Your task to perform on an android device: empty trash in google photos Image 0: 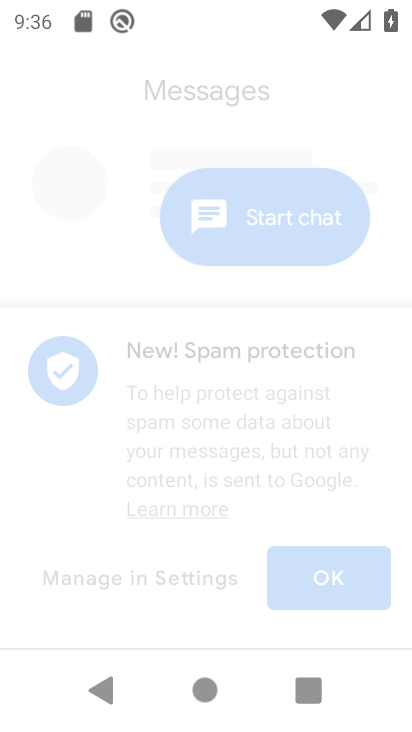
Step 0: drag from (387, 524) to (383, 153)
Your task to perform on an android device: empty trash in google photos Image 1: 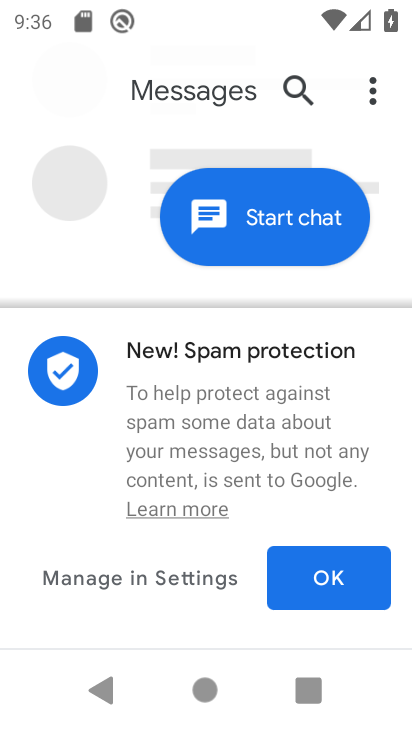
Step 1: press home button
Your task to perform on an android device: empty trash in google photos Image 2: 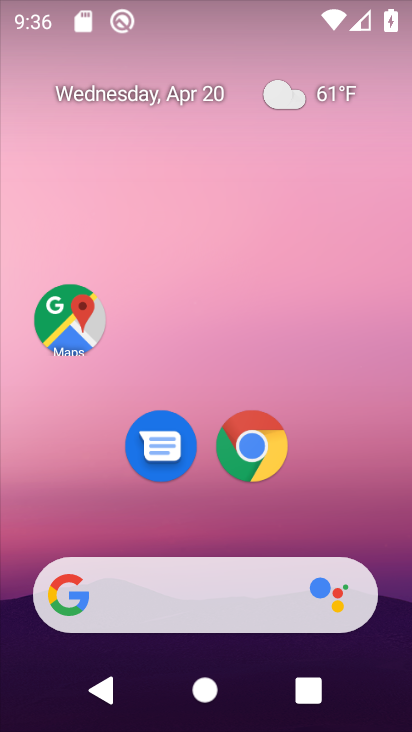
Step 2: drag from (366, 453) to (356, 97)
Your task to perform on an android device: empty trash in google photos Image 3: 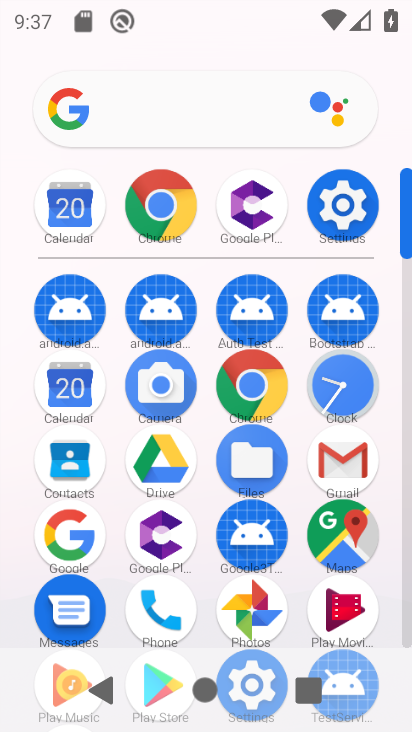
Step 3: click (259, 617)
Your task to perform on an android device: empty trash in google photos Image 4: 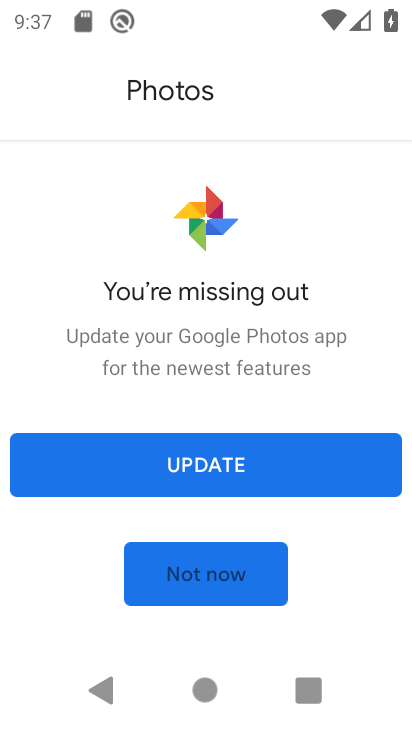
Step 4: click (223, 466)
Your task to perform on an android device: empty trash in google photos Image 5: 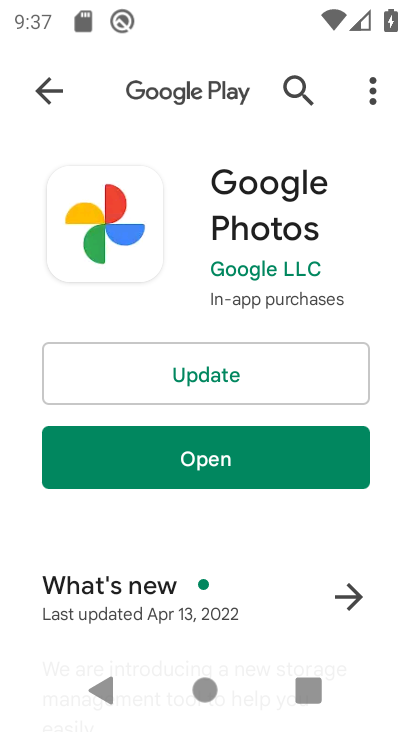
Step 5: click (231, 381)
Your task to perform on an android device: empty trash in google photos Image 6: 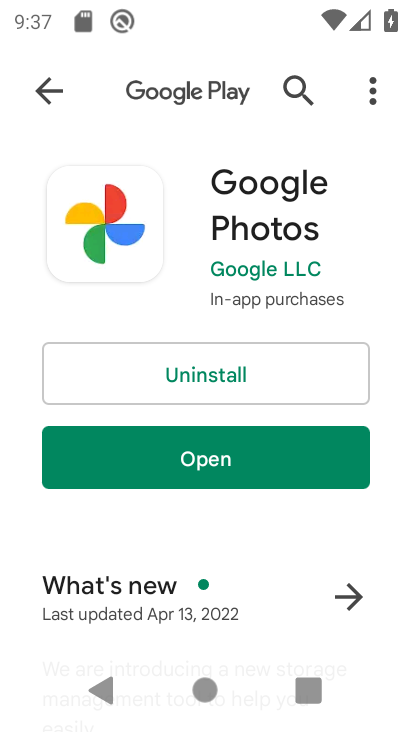
Step 6: click (240, 452)
Your task to perform on an android device: empty trash in google photos Image 7: 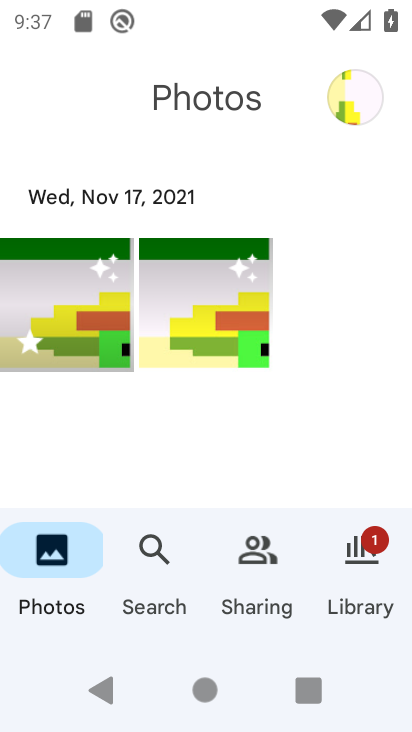
Step 7: click (360, 543)
Your task to perform on an android device: empty trash in google photos Image 8: 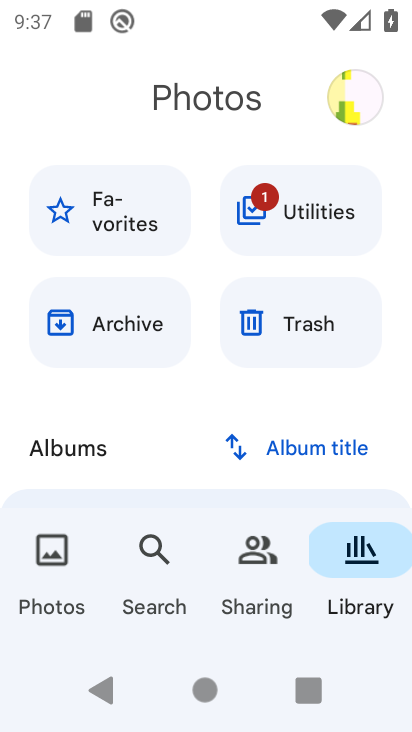
Step 8: click (307, 319)
Your task to perform on an android device: empty trash in google photos Image 9: 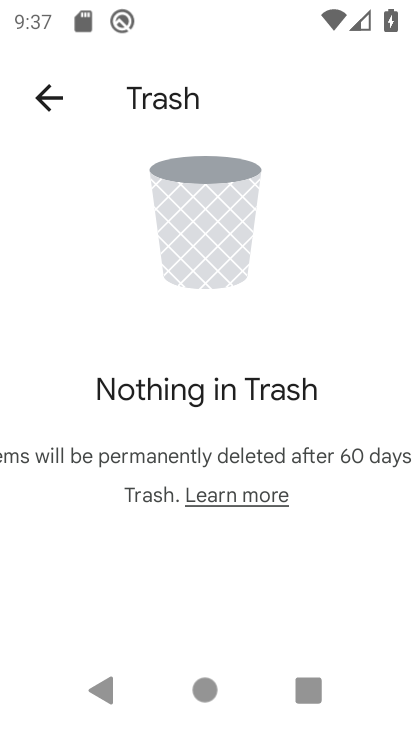
Step 9: task complete